Your task to perform on an android device: Open ESPN.com Image 0: 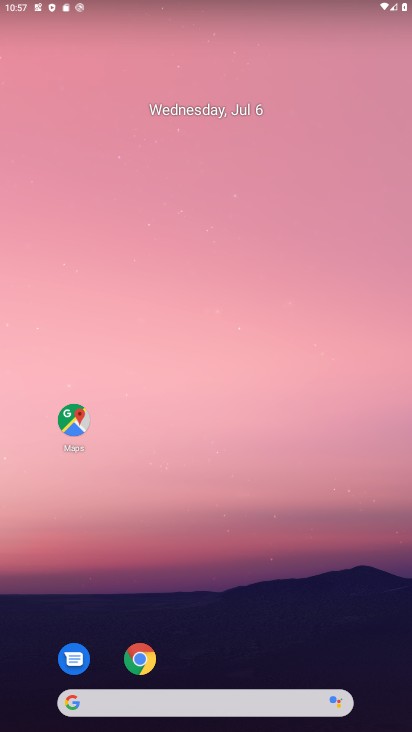
Step 0: click (138, 657)
Your task to perform on an android device: Open ESPN.com Image 1: 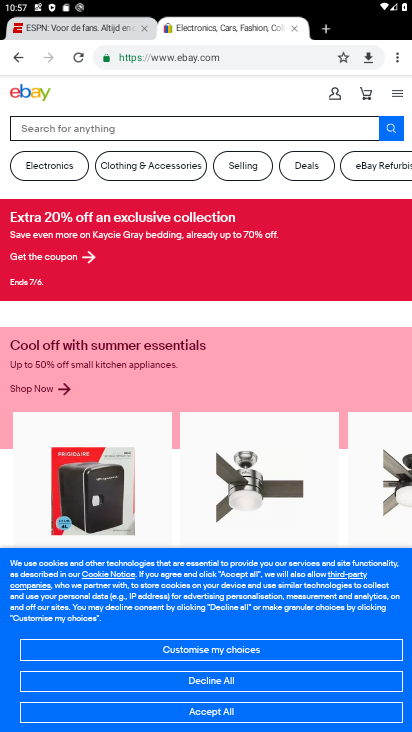
Step 1: click (395, 57)
Your task to perform on an android device: Open ESPN.com Image 2: 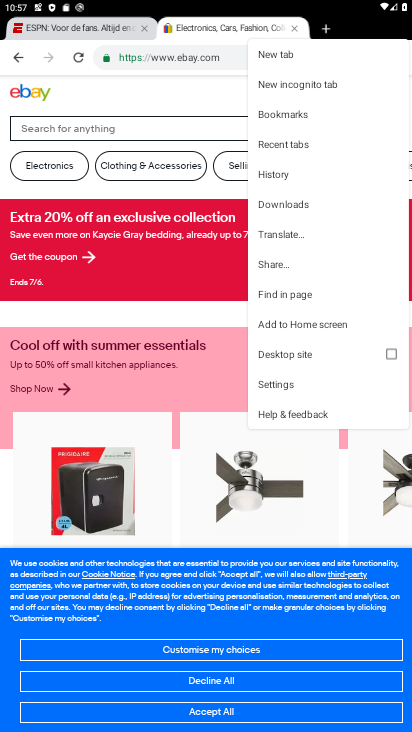
Step 2: click (275, 53)
Your task to perform on an android device: Open ESPN.com Image 3: 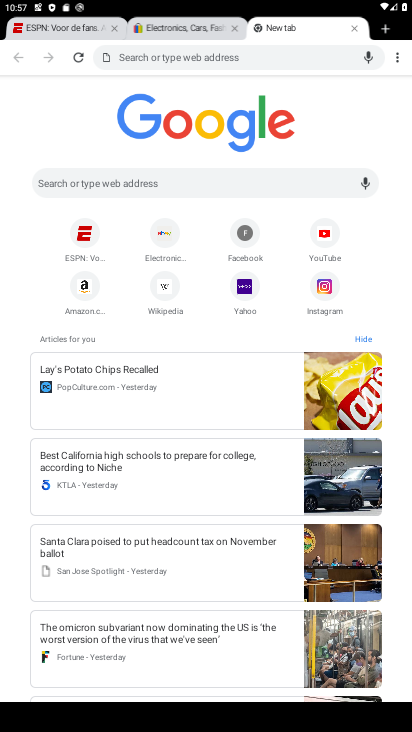
Step 3: click (82, 236)
Your task to perform on an android device: Open ESPN.com Image 4: 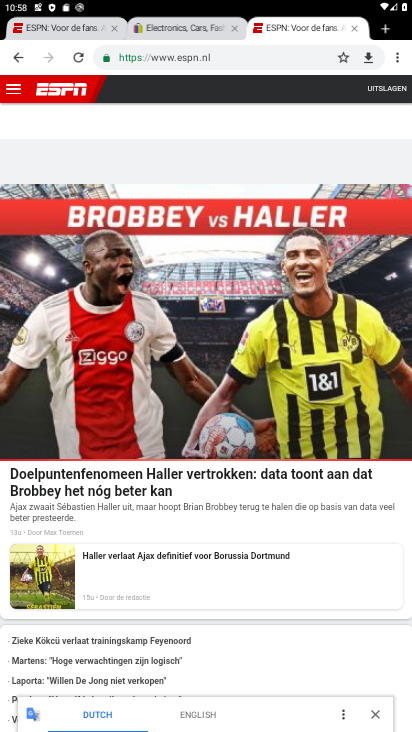
Step 4: task complete